Your task to perform on an android device: turn off location Image 0: 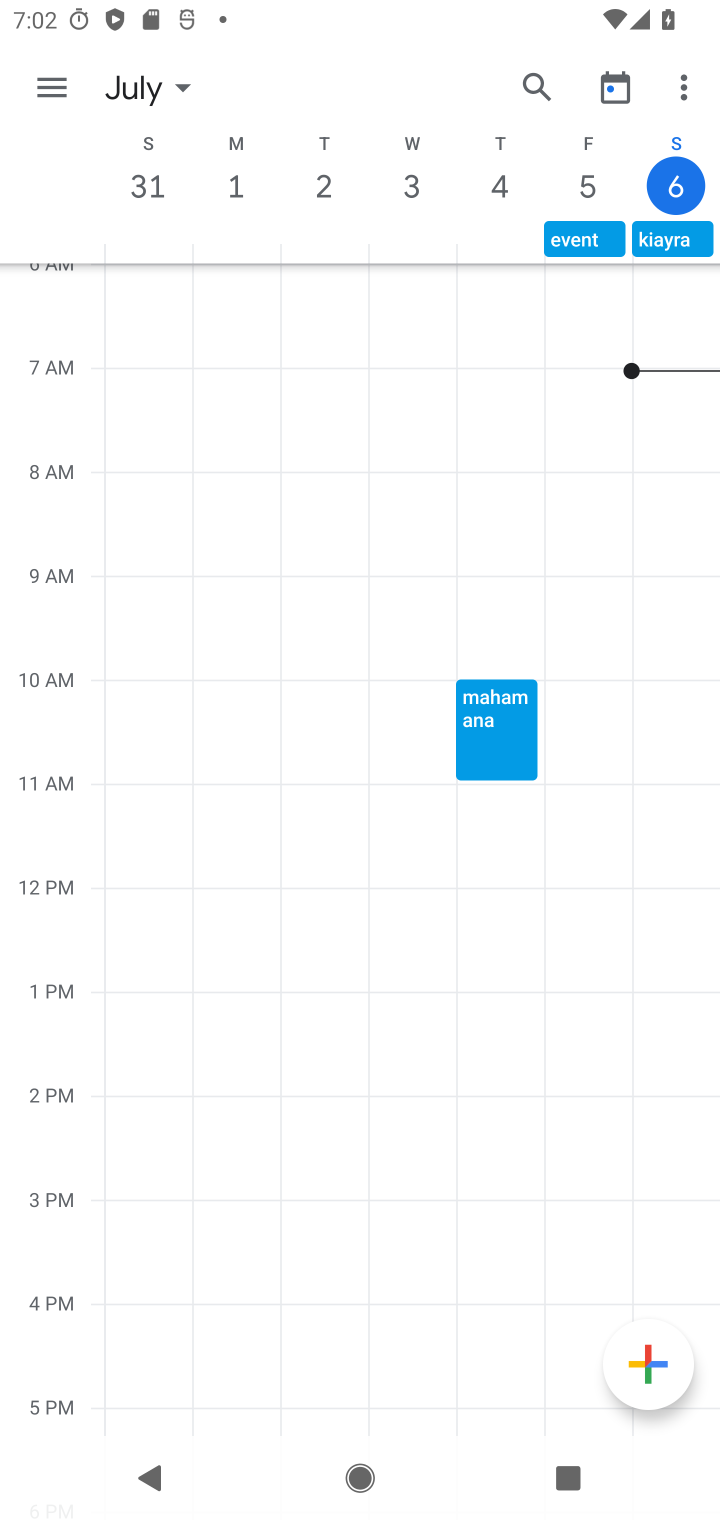
Step 0: press home button
Your task to perform on an android device: turn off location Image 1: 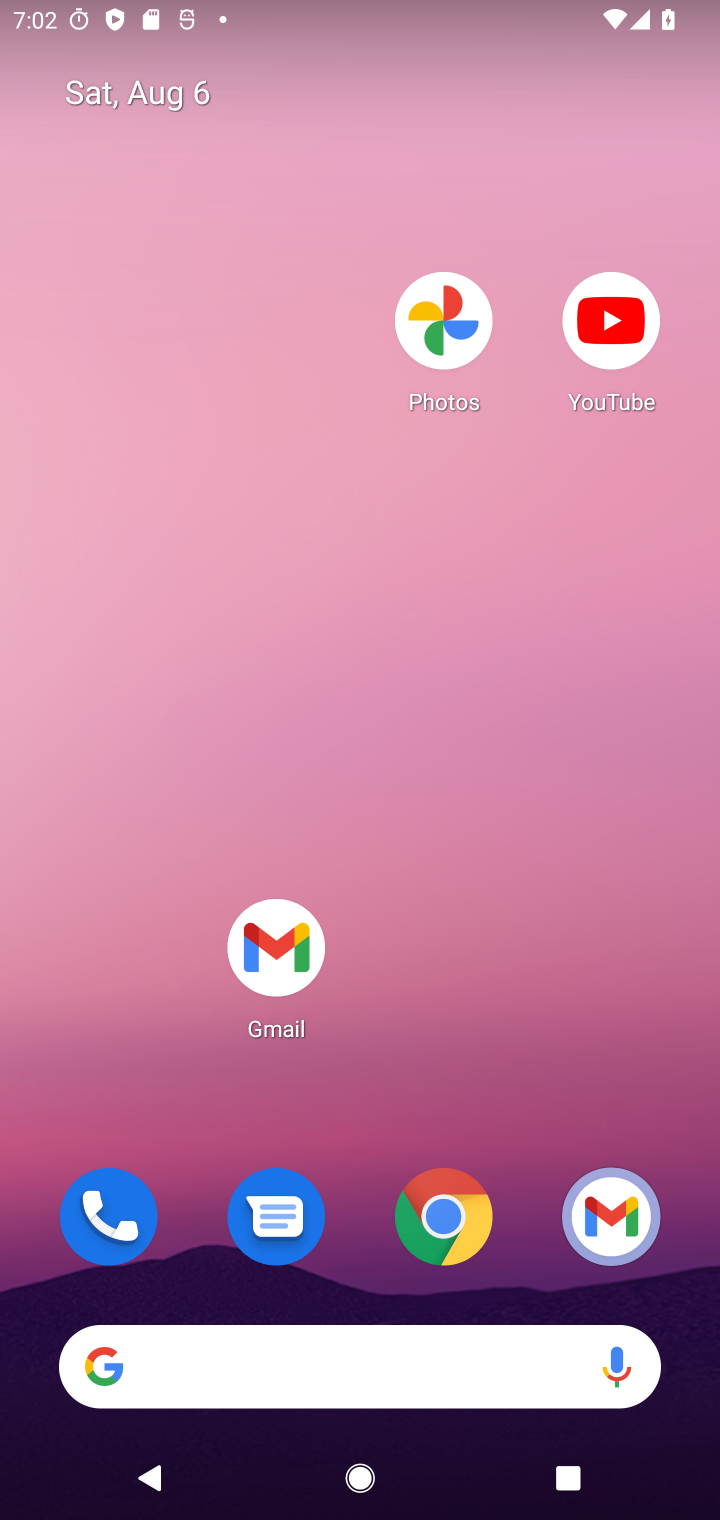
Step 1: drag from (499, 991) to (472, 24)
Your task to perform on an android device: turn off location Image 2: 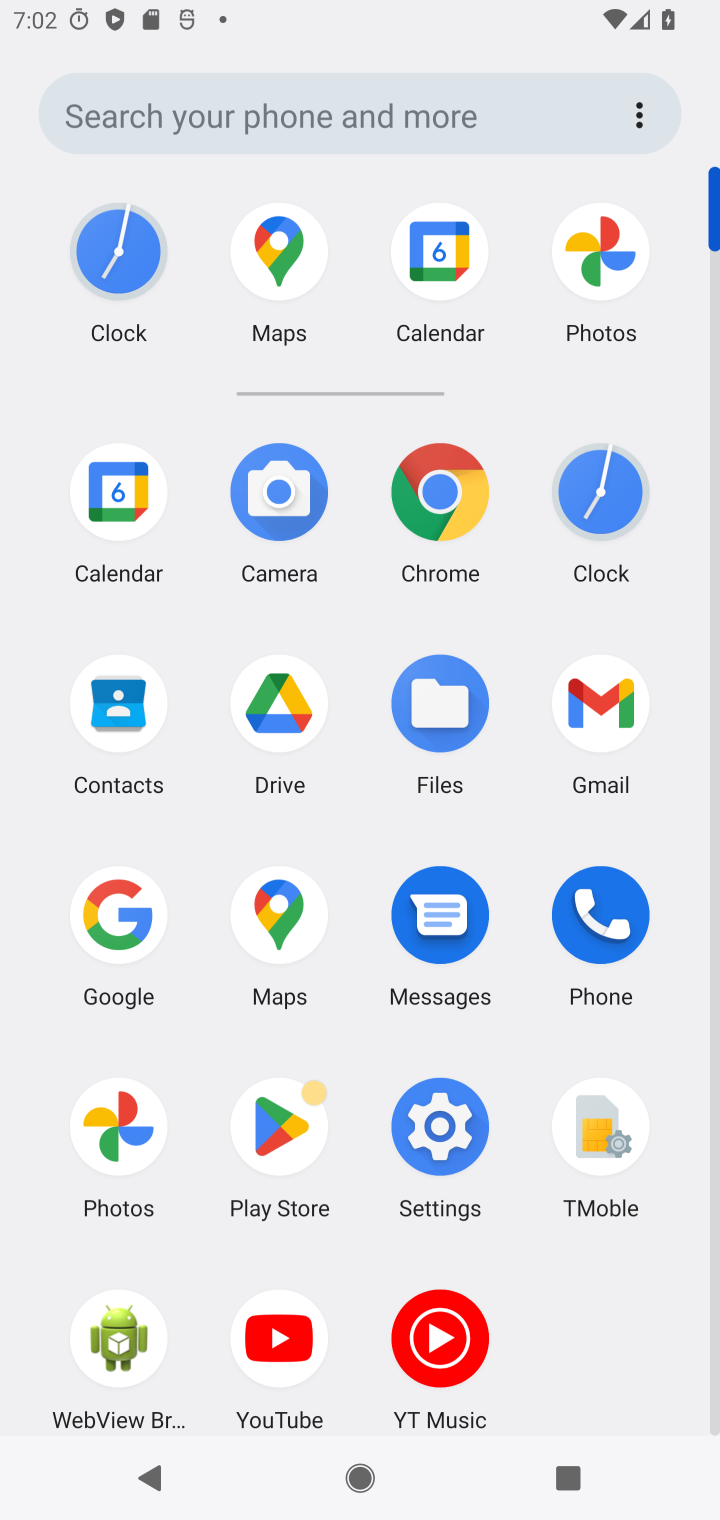
Step 2: click (443, 1126)
Your task to perform on an android device: turn off location Image 3: 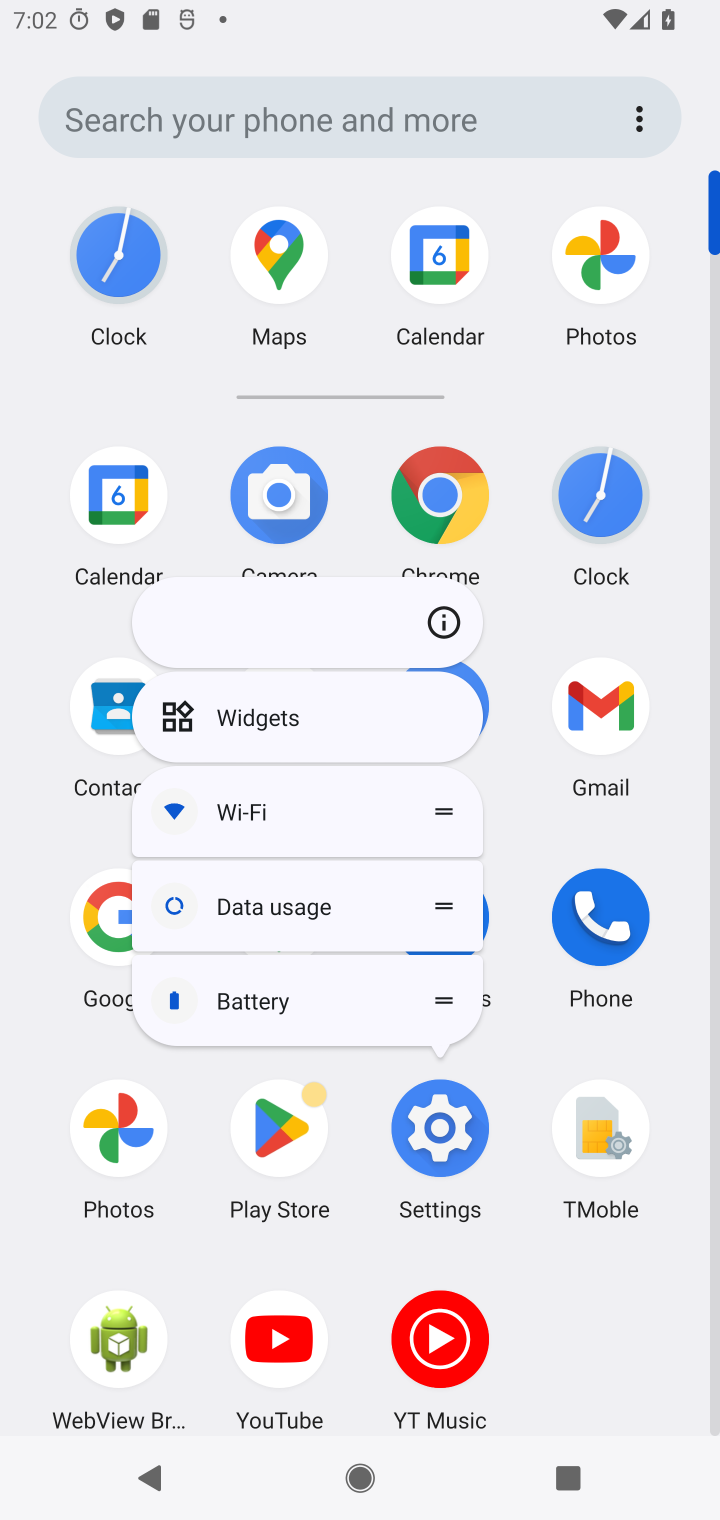
Step 3: click (441, 1136)
Your task to perform on an android device: turn off location Image 4: 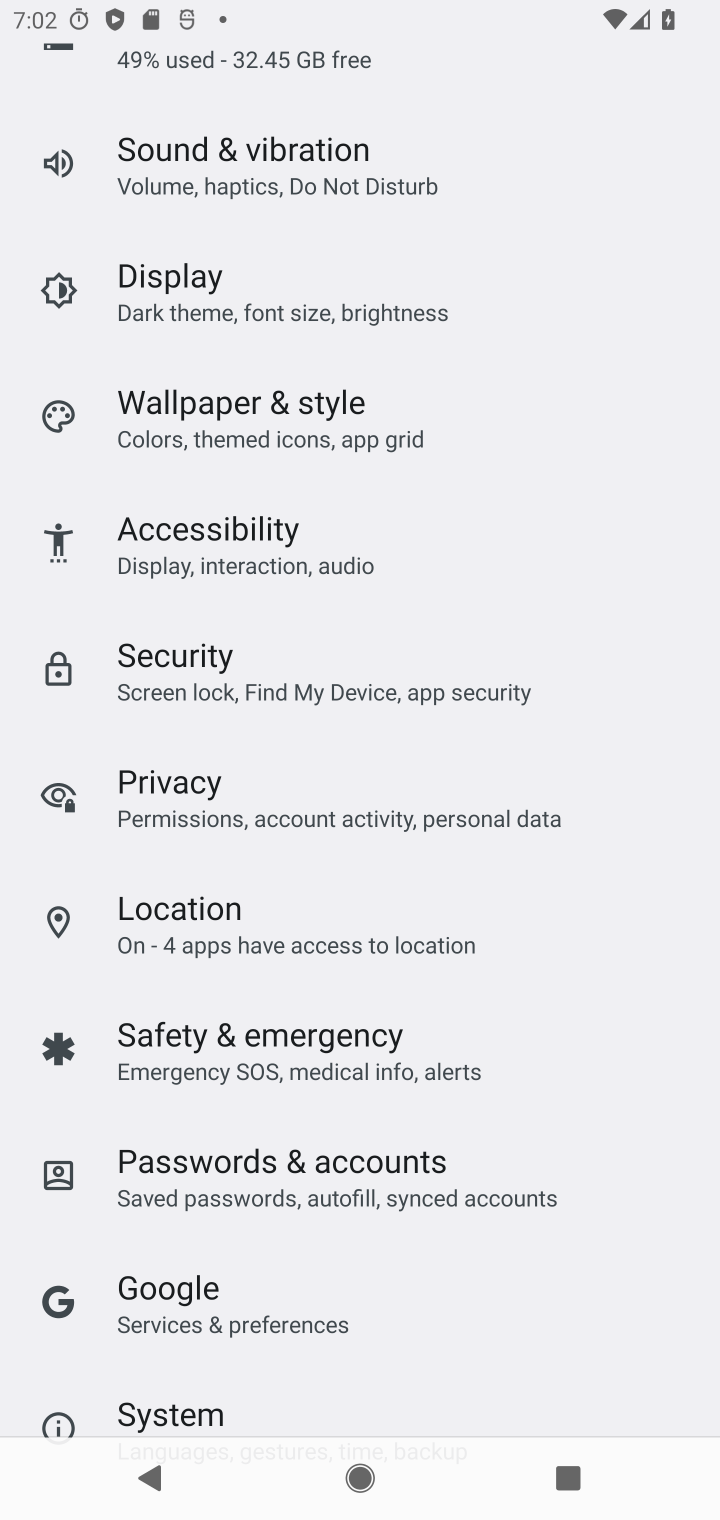
Step 4: click (244, 941)
Your task to perform on an android device: turn off location Image 5: 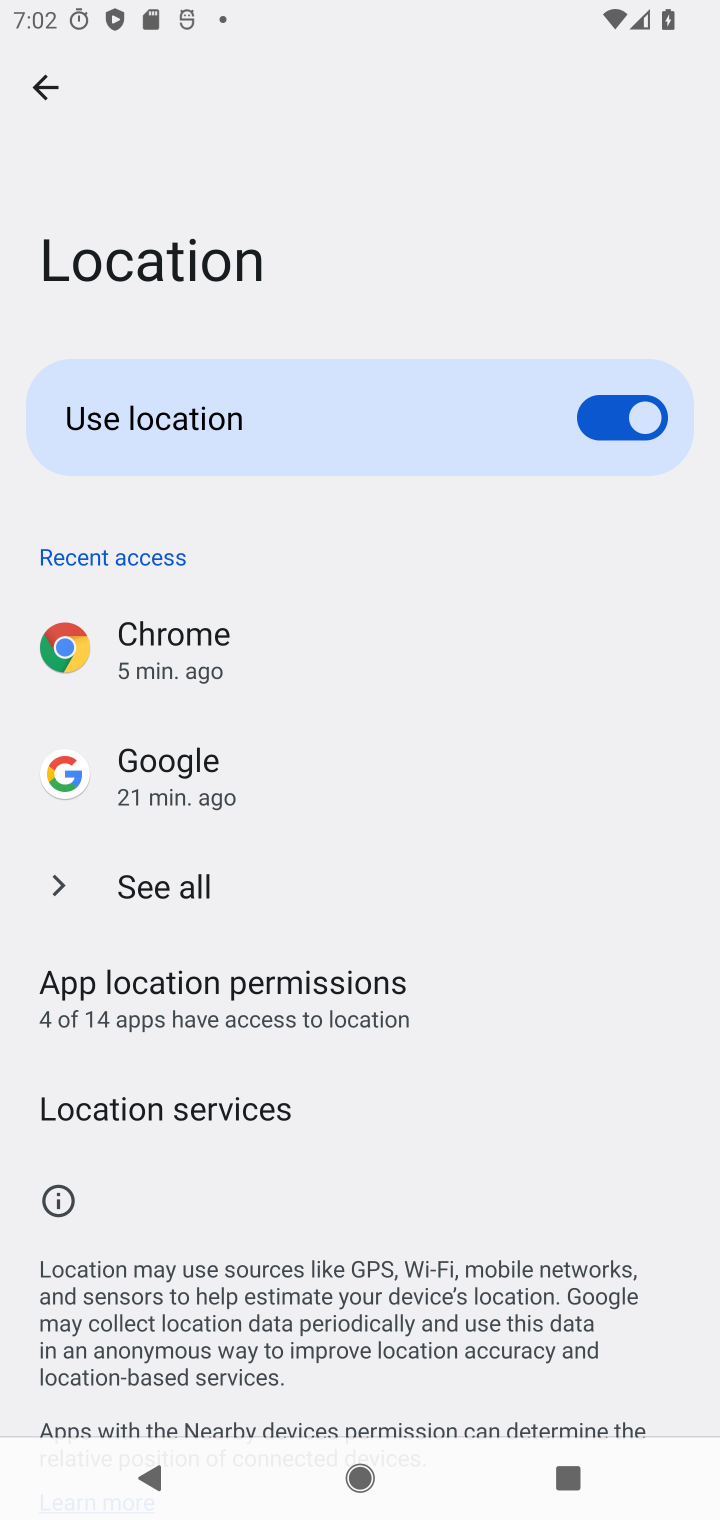
Step 5: click (625, 392)
Your task to perform on an android device: turn off location Image 6: 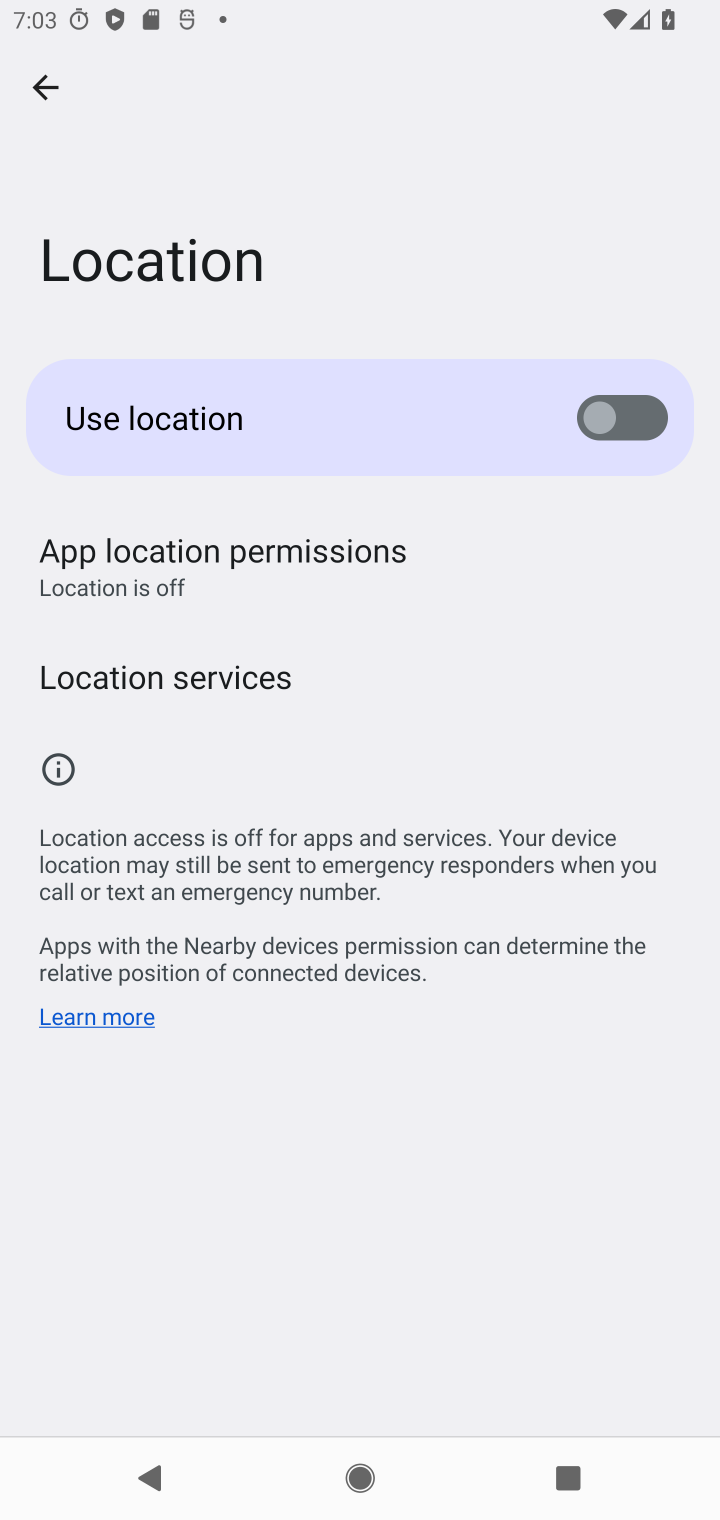
Step 6: task complete